Your task to perform on an android device: Do I have any events today? Image 0: 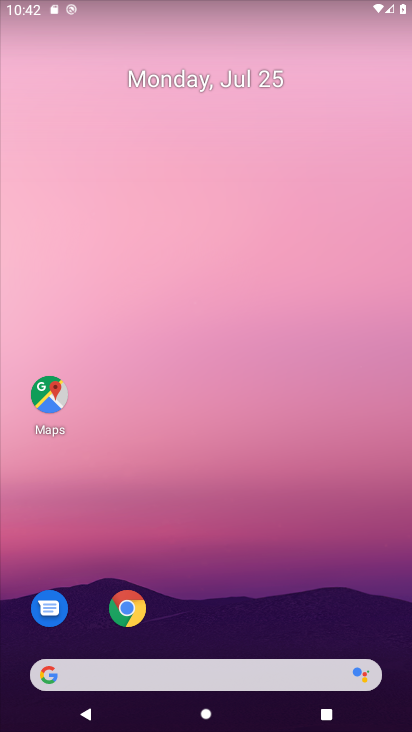
Step 0: drag from (306, 642) to (302, 309)
Your task to perform on an android device: Do I have any events today? Image 1: 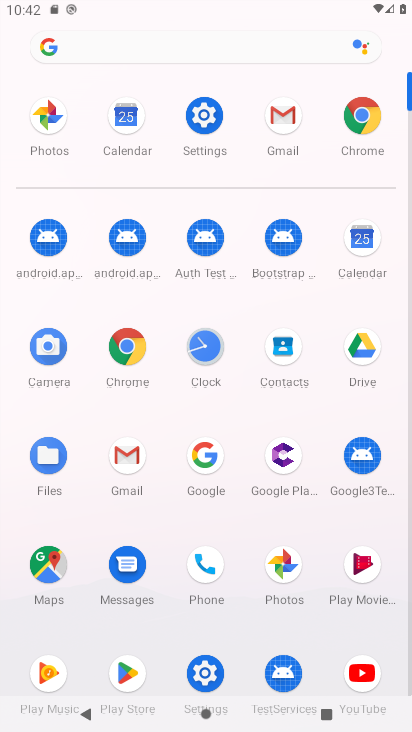
Step 1: click (368, 229)
Your task to perform on an android device: Do I have any events today? Image 2: 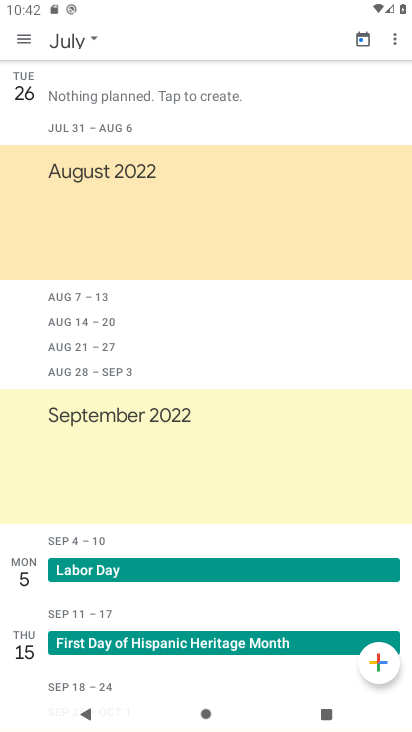
Step 2: task complete